Your task to perform on an android device: check out phone information Image 0: 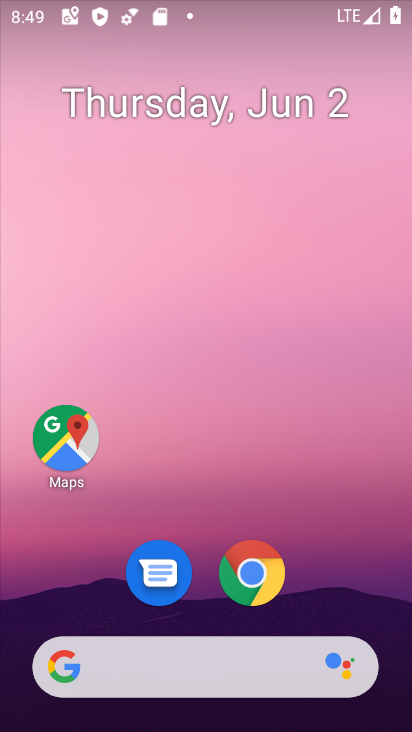
Step 0: press home button
Your task to perform on an android device: check out phone information Image 1: 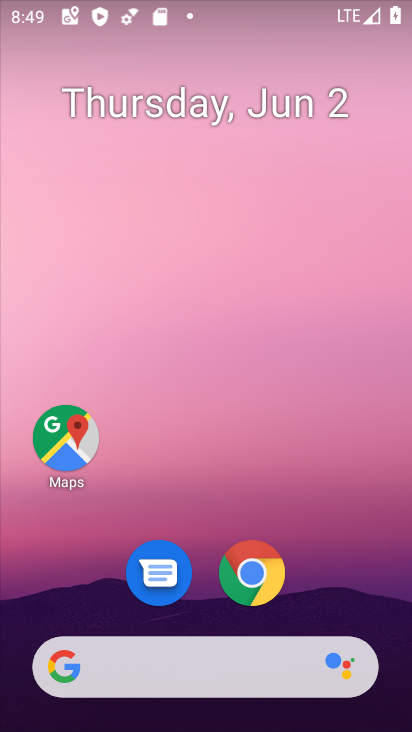
Step 1: drag from (297, 586) to (170, 0)
Your task to perform on an android device: check out phone information Image 2: 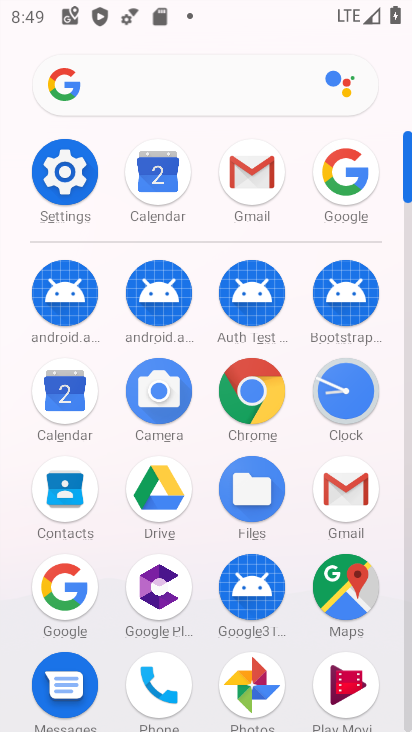
Step 2: click (143, 680)
Your task to perform on an android device: check out phone information Image 3: 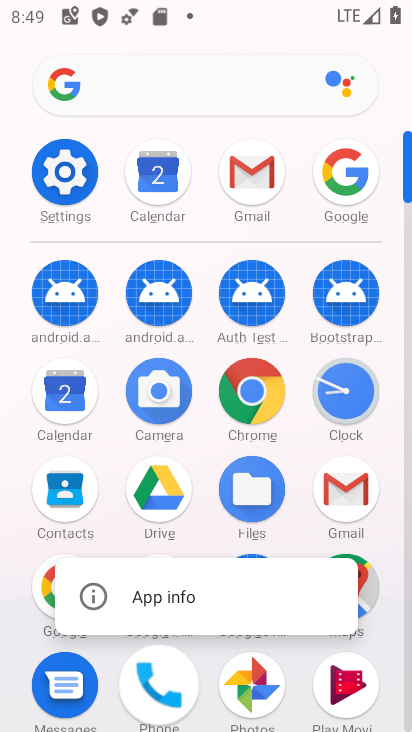
Step 3: click (163, 605)
Your task to perform on an android device: check out phone information Image 4: 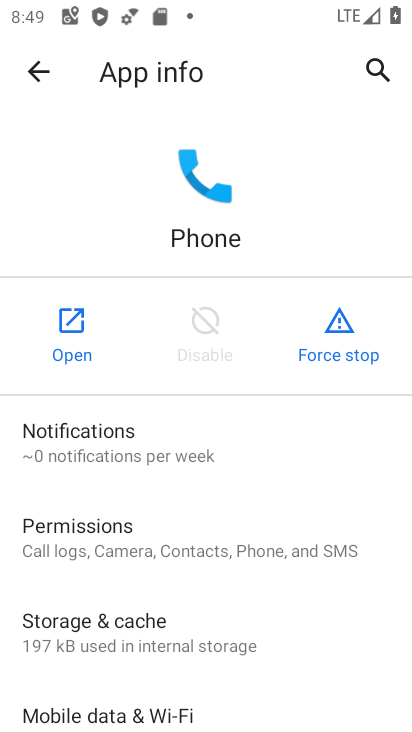
Step 4: task complete